Your task to perform on an android device: Is it going to rain tomorrow? Image 0: 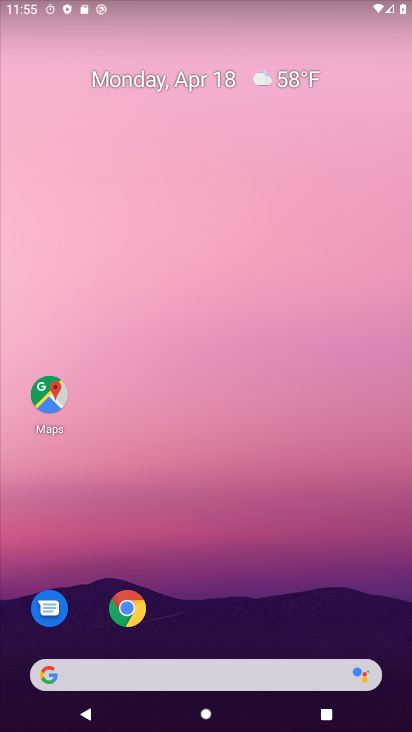
Step 0: click (289, 83)
Your task to perform on an android device: Is it going to rain tomorrow? Image 1: 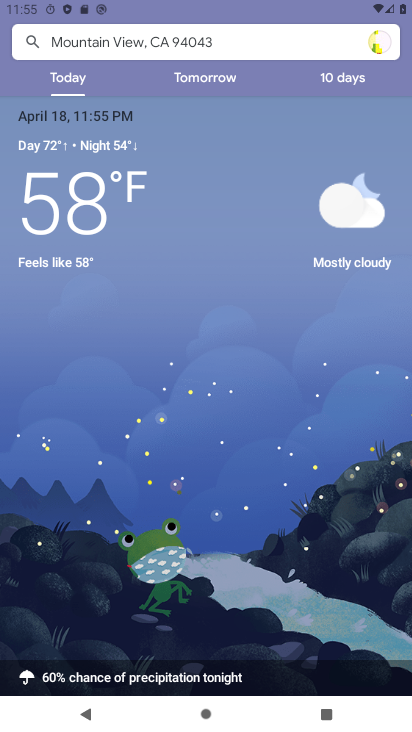
Step 1: click (211, 78)
Your task to perform on an android device: Is it going to rain tomorrow? Image 2: 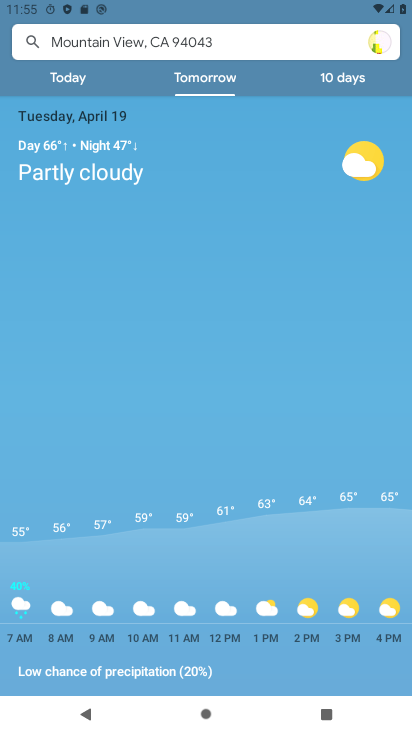
Step 2: task complete